Your task to perform on an android device: Check the weather Image 0: 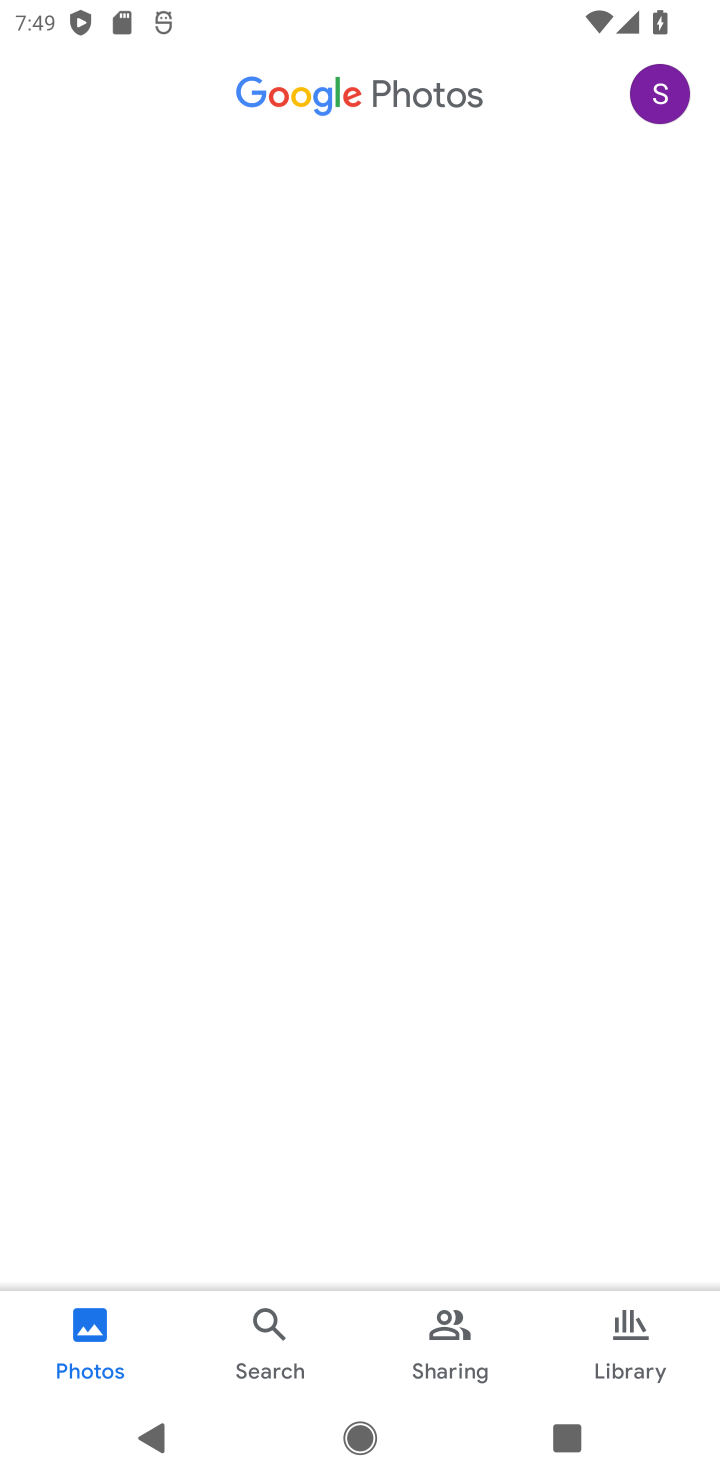
Step 0: press home button
Your task to perform on an android device: Check the weather Image 1: 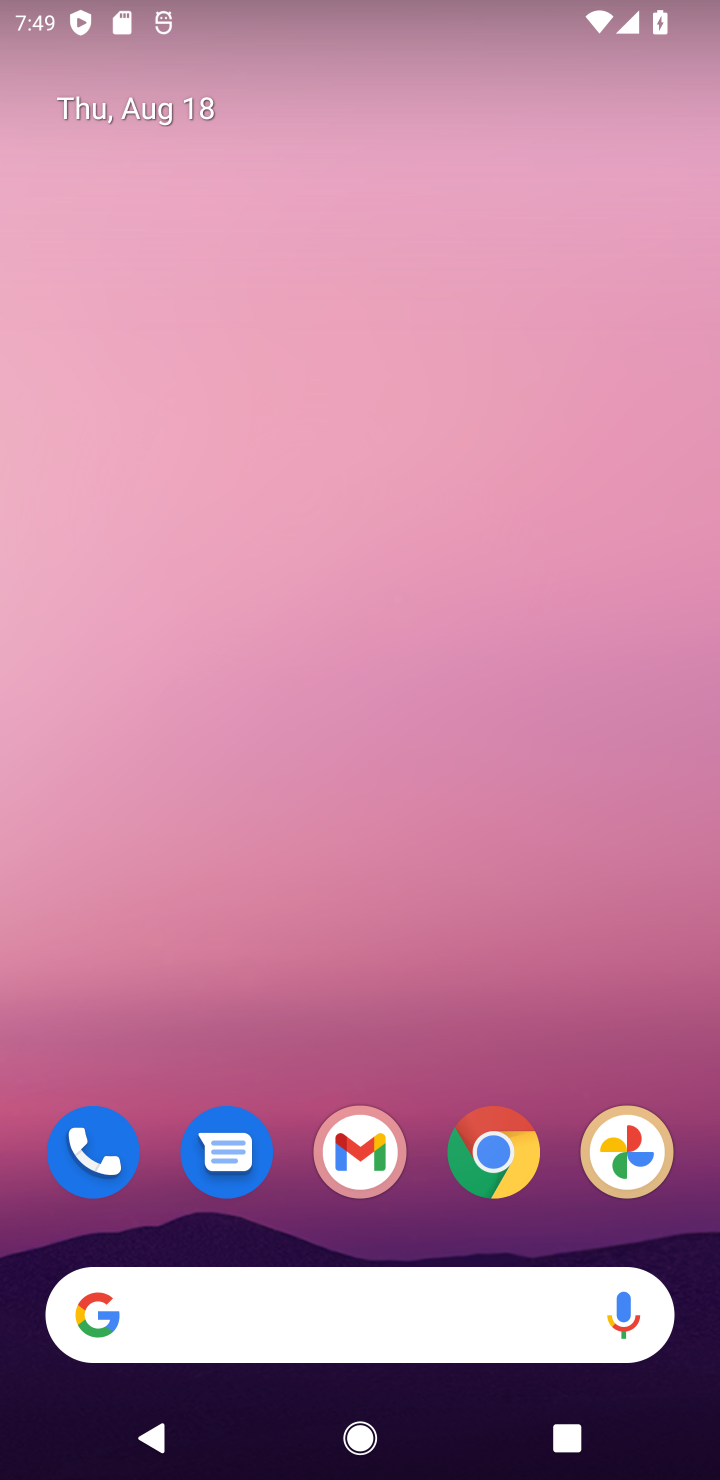
Step 1: click (94, 1315)
Your task to perform on an android device: Check the weather Image 2: 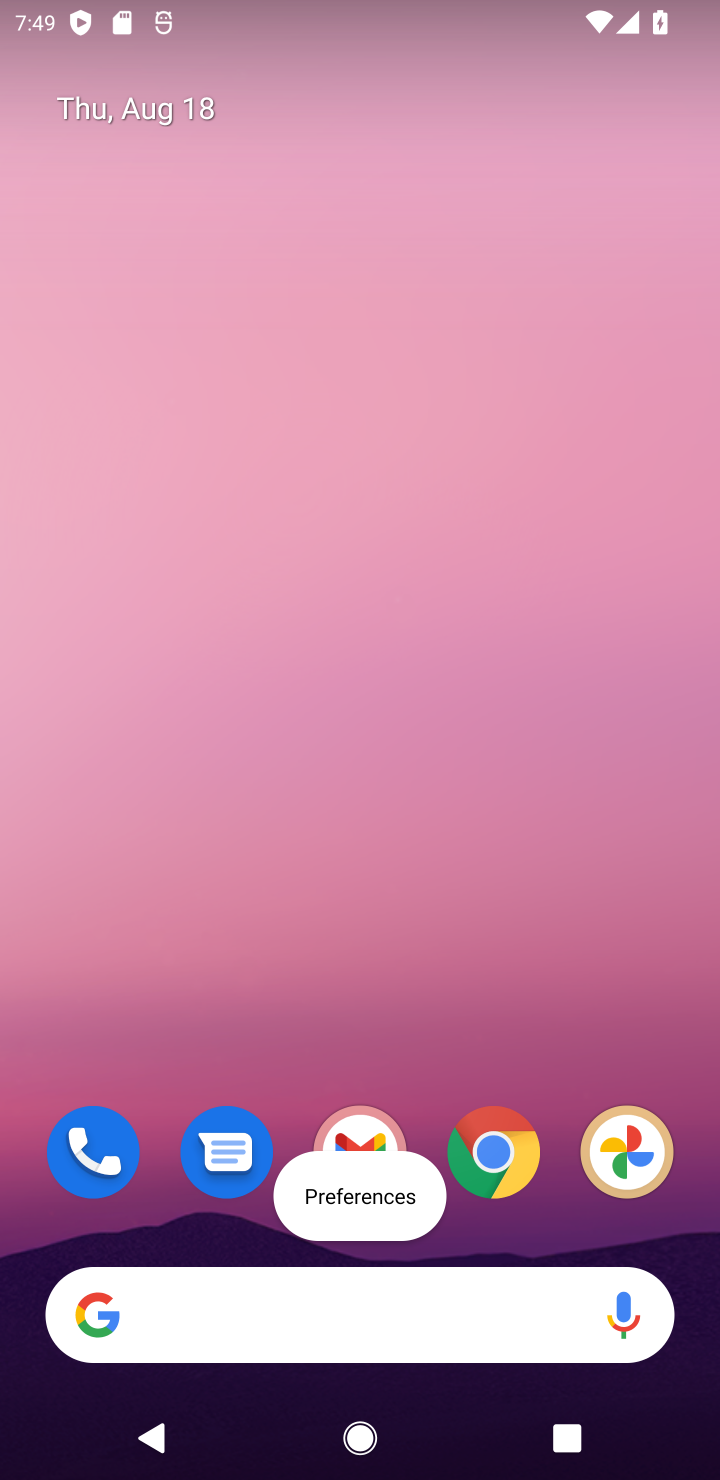
Step 2: click (94, 1315)
Your task to perform on an android device: Check the weather Image 3: 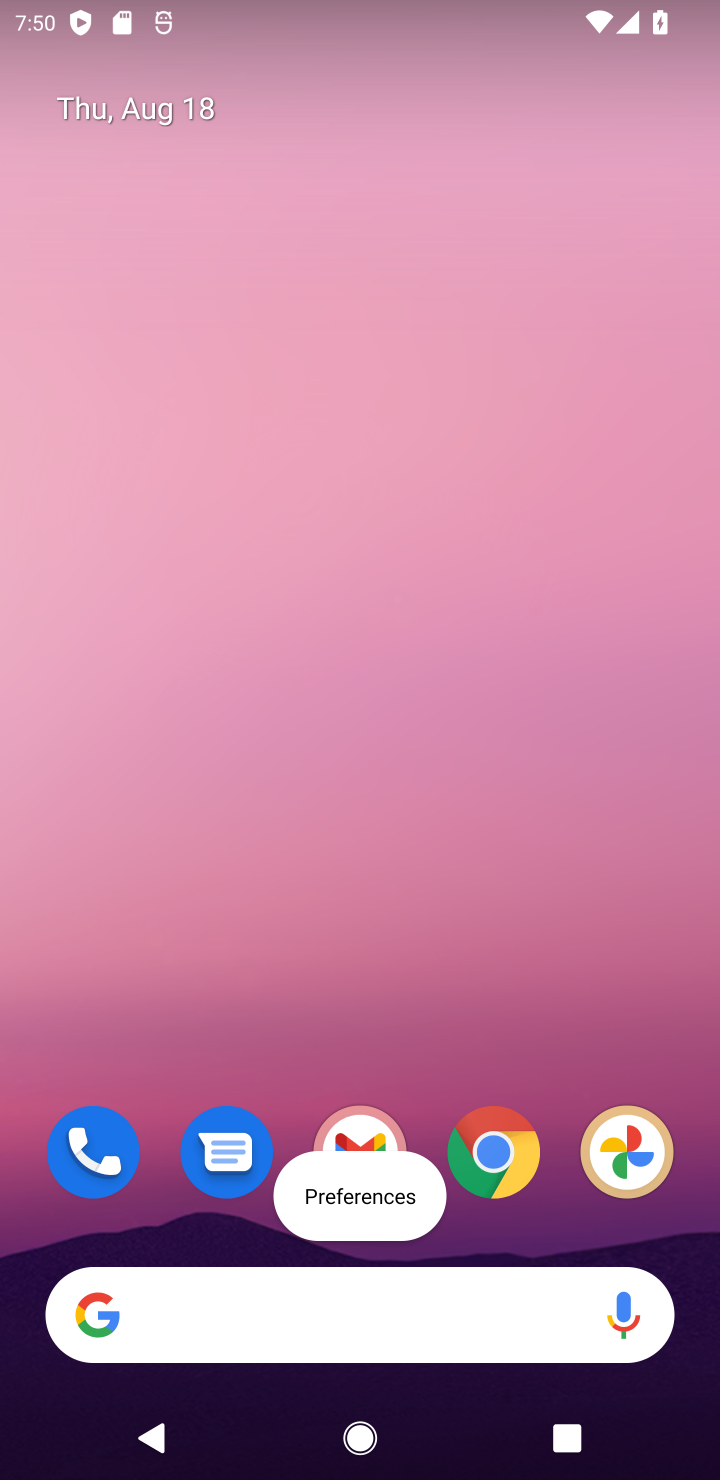
Step 3: click (86, 1335)
Your task to perform on an android device: Check the weather Image 4: 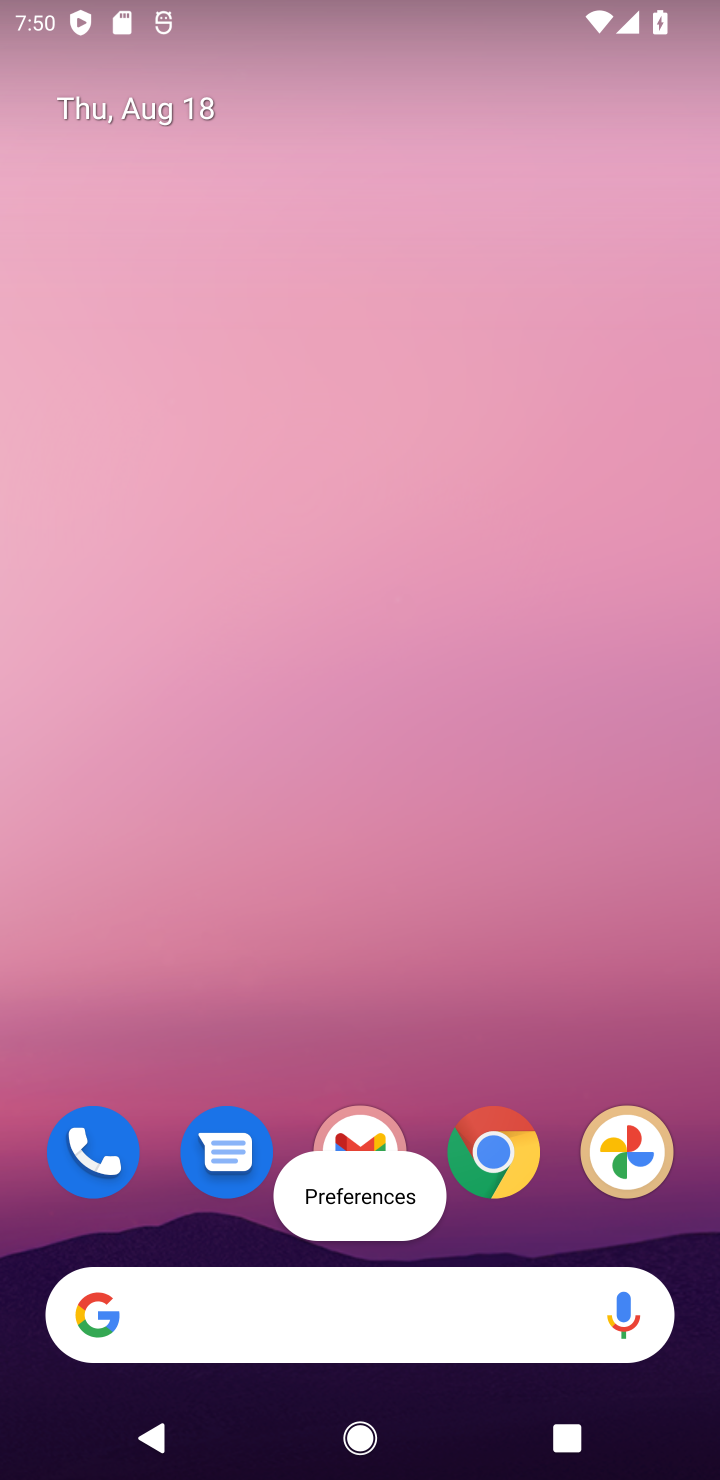
Step 4: click (91, 1326)
Your task to perform on an android device: Check the weather Image 5: 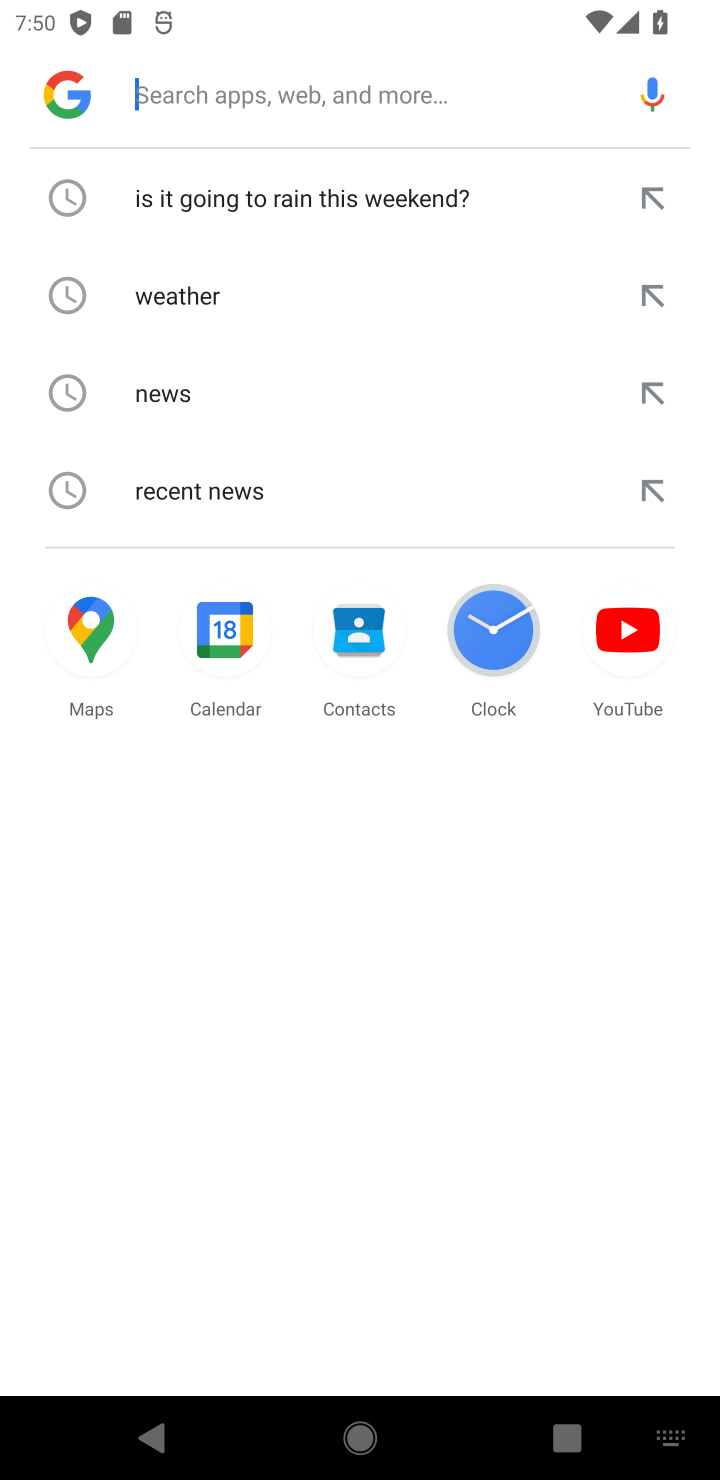
Step 5: click (157, 296)
Your task to perform on an android device: Check the weather Image 6: 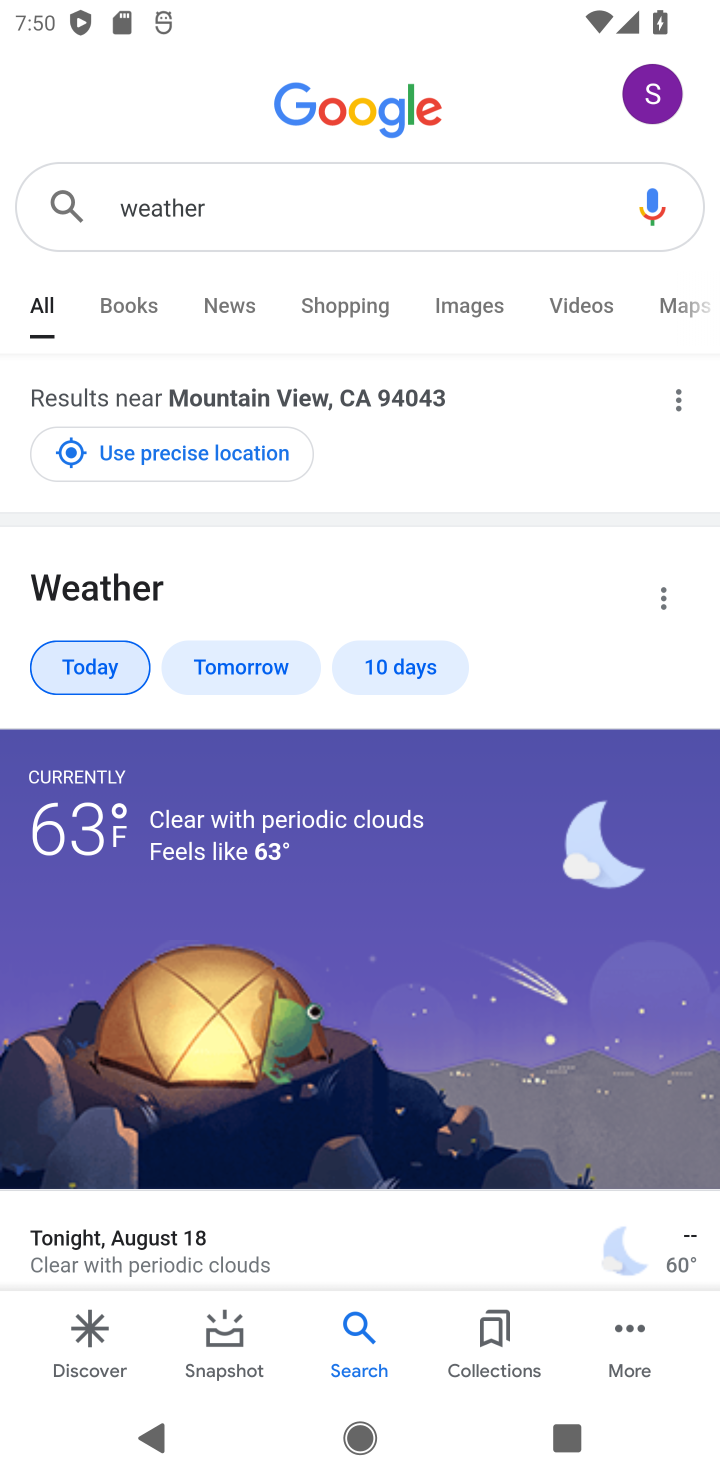
Step 6: task complete